Your task to perform on an android device: What's on my calendar today? Image 0: 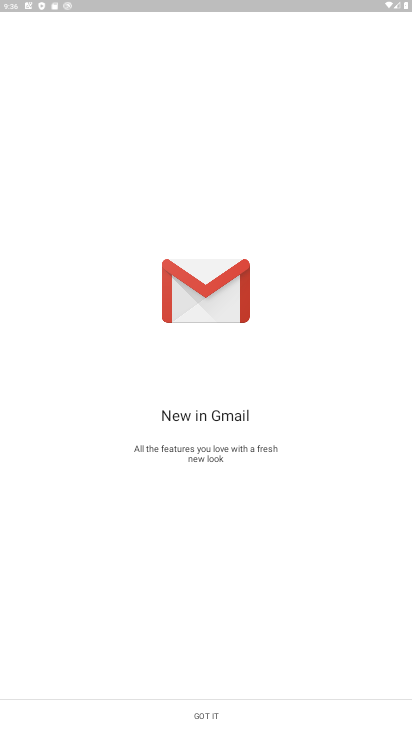
Step 0: press home button
Your task to perform on an android device: What's on my calendar today? Image 1: 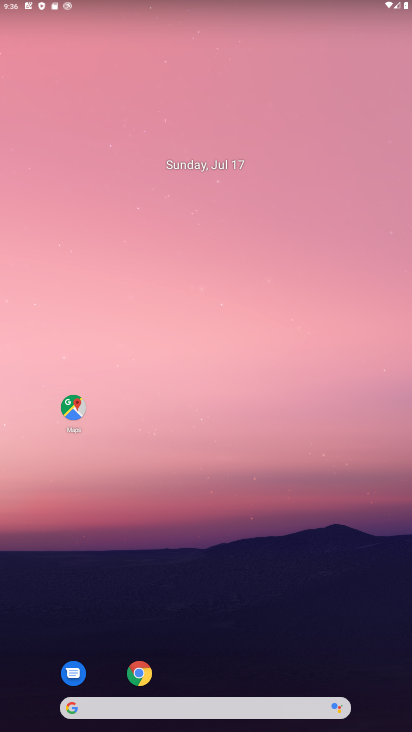
Step 1: drag from (204, 682) to (170, 181)
Your task to perform on an android device: What's on my calendar today? Image 2: 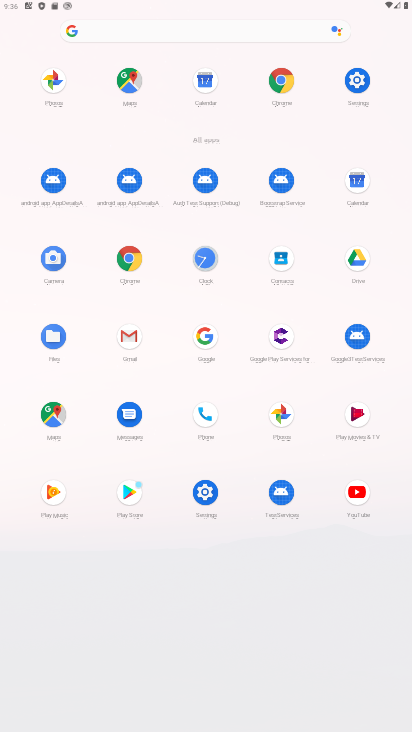
Step 2: click (361, 176)
Your task to perform on an android device: What's on my calendar today? Image 3: 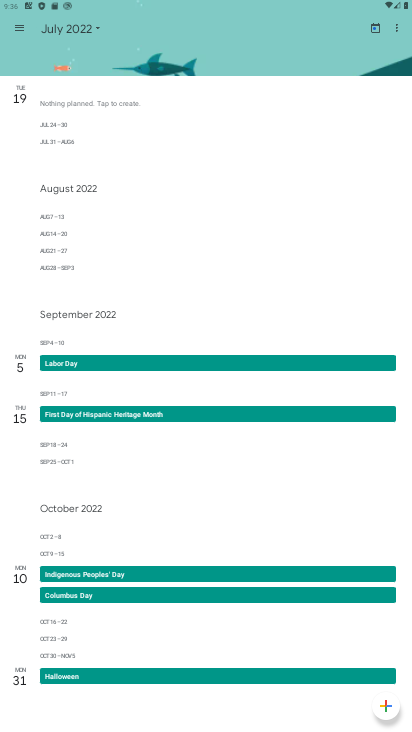
Step 3: click (94, 26)
Your task to perform on an android device: What's on my calendar today? Image 4: 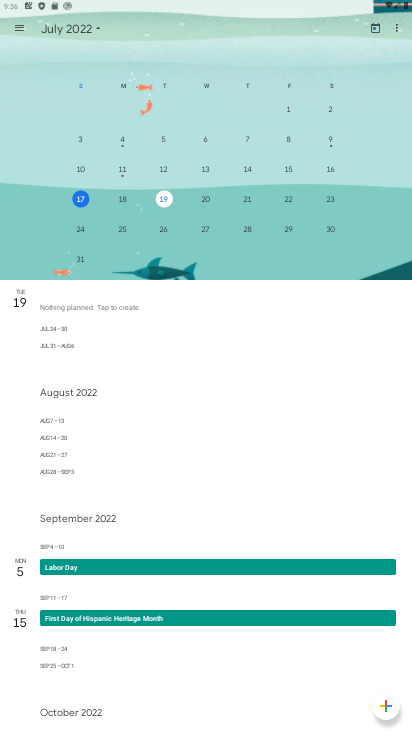
Step 4: click (84, 201)
Your task to perform on an android device: What's on my calendar today? Image 5: 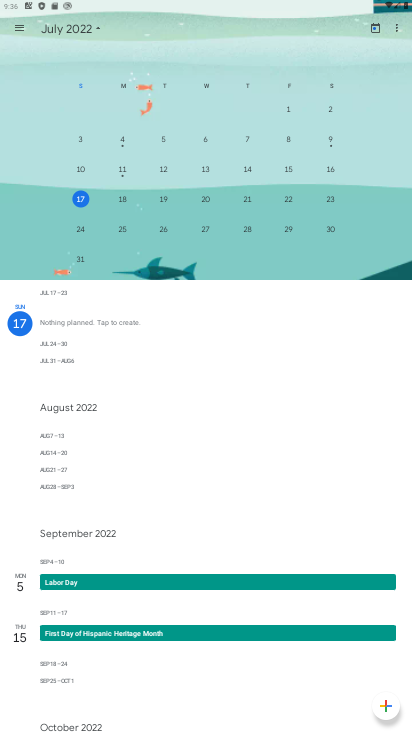
Step 5: task complete